Your task to perform on an android device: Go to battery settings Image 0: 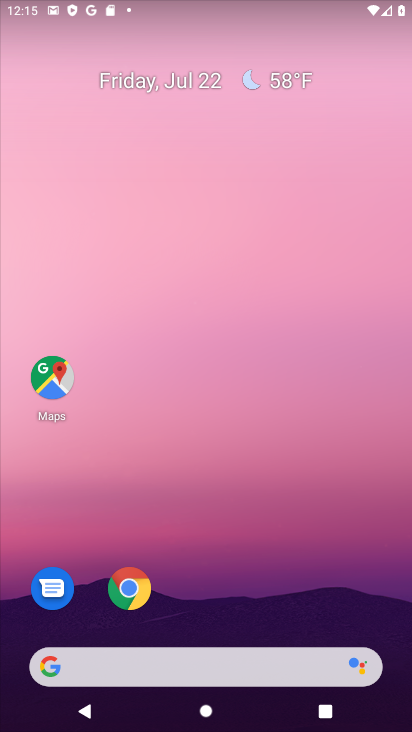
Step 0: drag from (292, 576) to (291, 371)
Your task to perform on an android device: Go to battery settings Image 1: 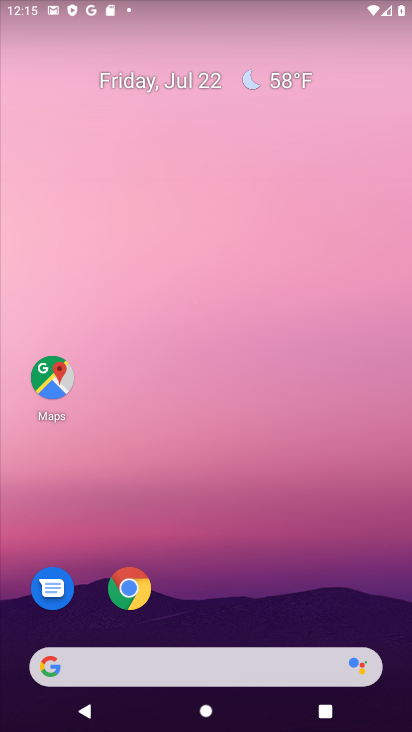
Step 1: drag from (314, 543) to (267, 2)
Your task to perform on an android device: Go to battery settings Image 2: 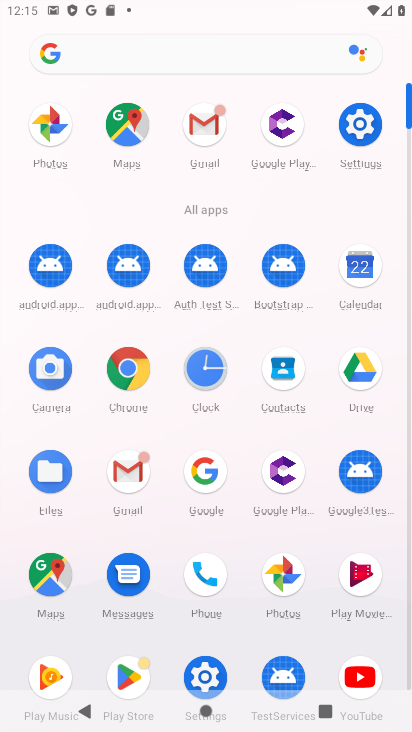
Step 2: click (347, 130)
Your task to perform on an android device: Go to battery settings Image 3: 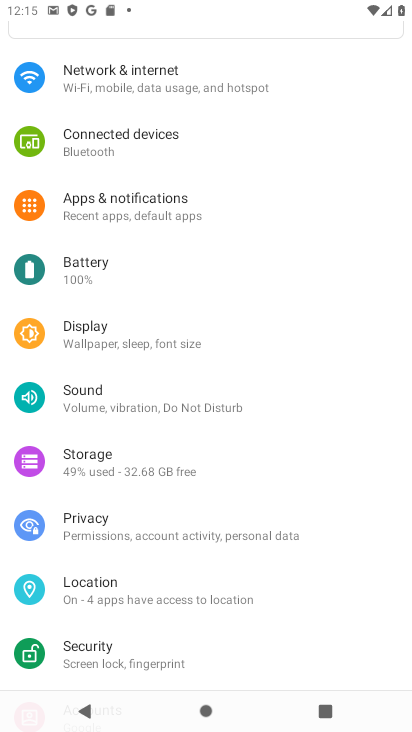
Step 3: click (112, 257)
Your task to perform on an android device: Go to battery settings Image 4: 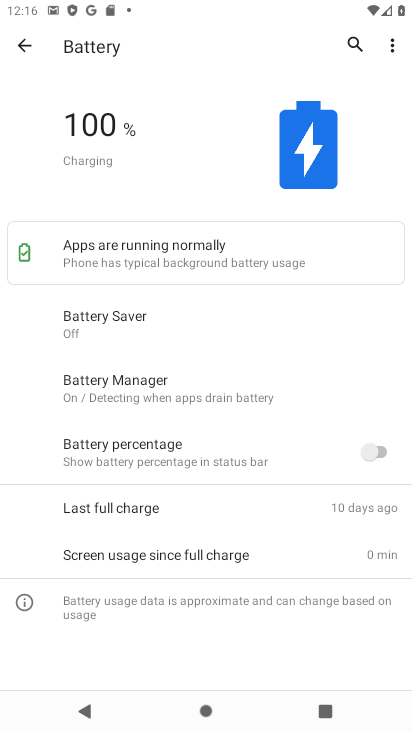
Step 4: task complete